Your task to perform on an android device: Open Youtube and go to the subscriptions tab Image 0: 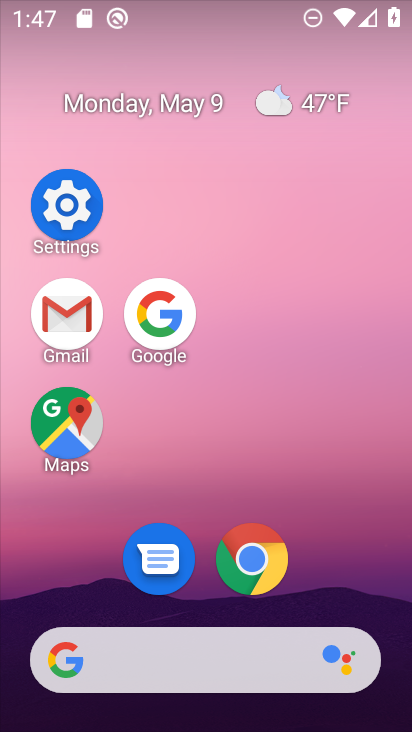
Step 0: drag from (337, 570) to (279, 136)
Your task to perform on an android device: Open Youtube and go to the subscriptions tab Image 1: 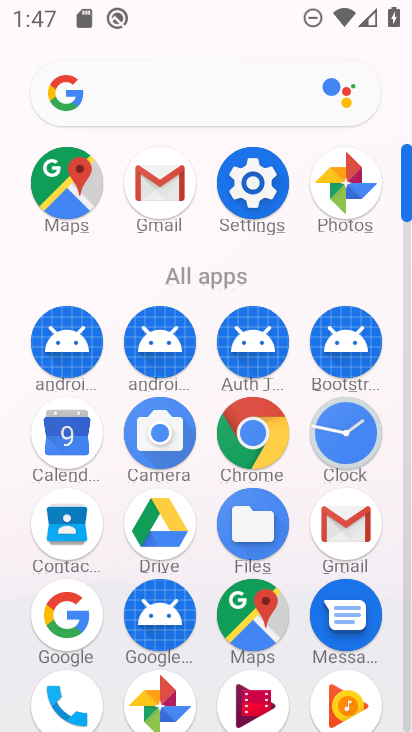
Step 1: drag from (285, 593) to (304, 241)
Your task to perform on an android device: Open Youtube and go to the subscriptions tab Image 2: 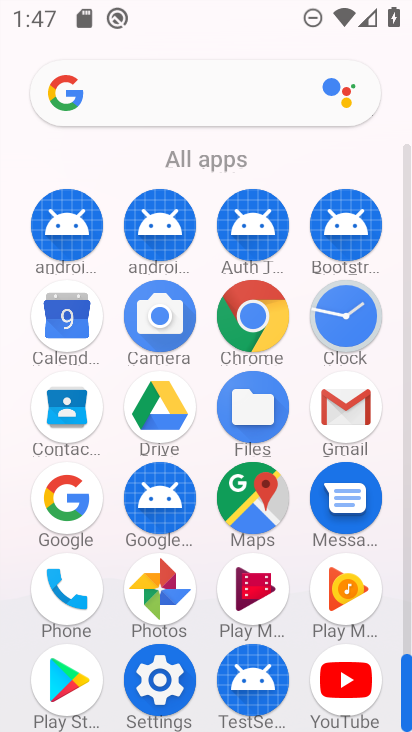
Step 2: click (335, 678)
Your task to perform on an android device: Open Youtube and go to the subscriptions tab Image 3: 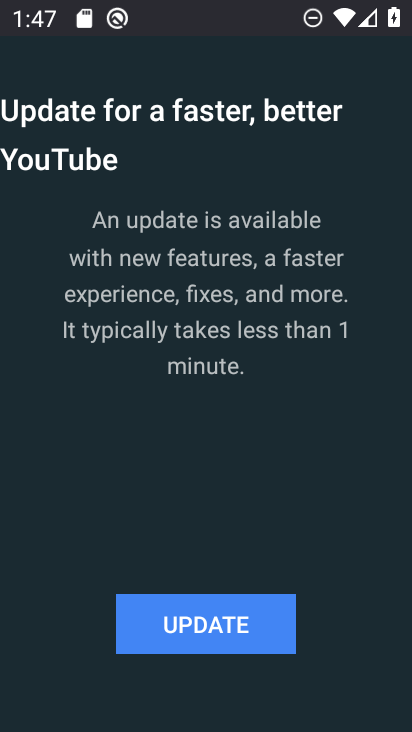
Step 3: click (247, 637)
Your task to perform on an android device: Open Youtube and go to the subscriptions tab Image 4: 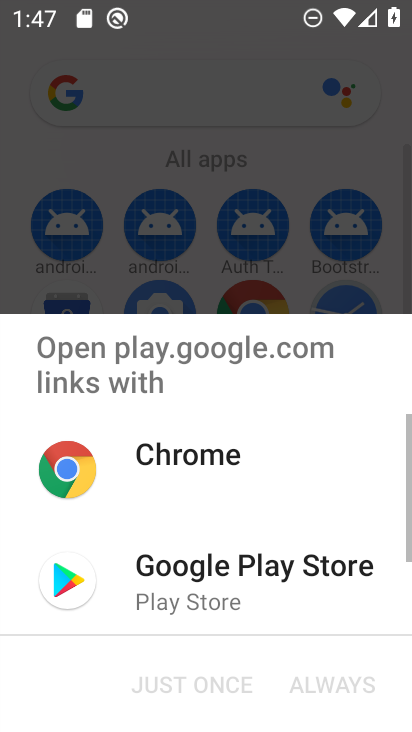
Step 4: click (262, 575)
Your task to perform on an android device: Open Youtube and go to the subscriptions tab Image 5: 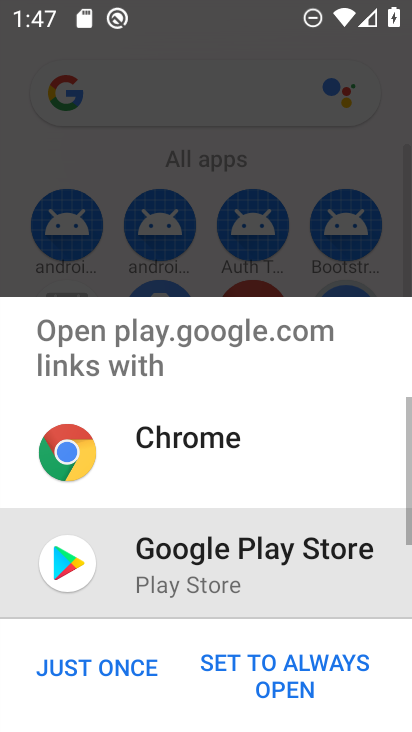
Step 5: click (262, 575)
Your task to perform on an android device: Open Youtube and go to the subscriptions tab Image 6: 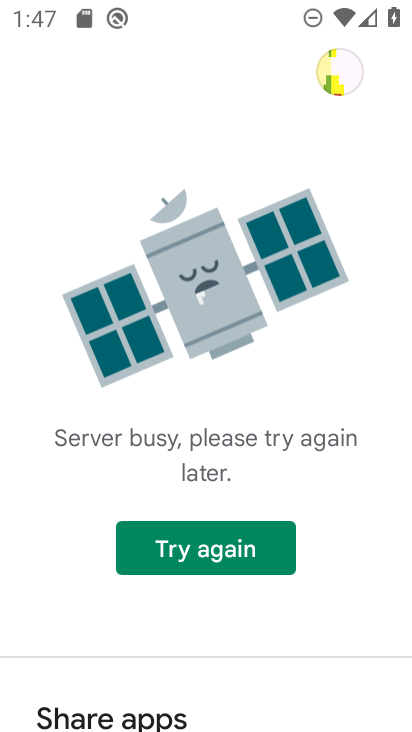
Step 6: click (226, 536)
Your task to perform on an android device: Open Youtube and go to the subscriptions tab Image 7: 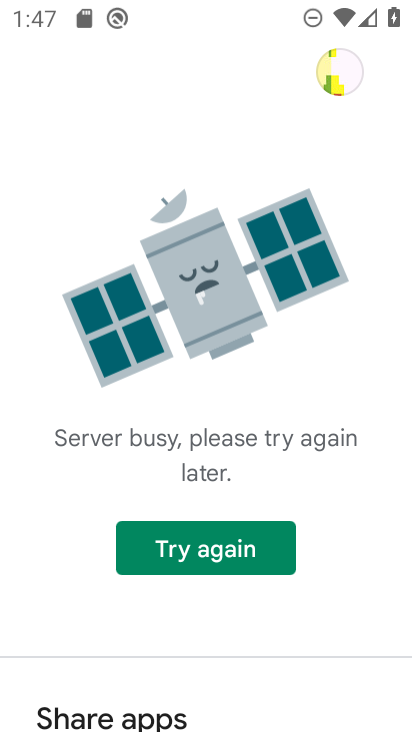
Step 7: task complete